Your task to perform on an android device: check the backup settings in the google photos Image 0: 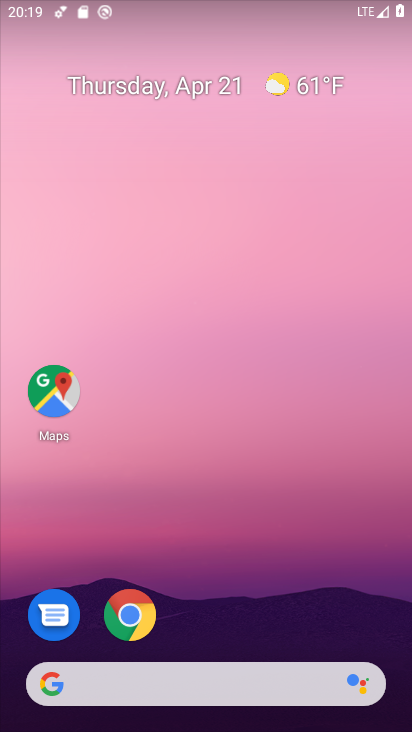
Step 0: drag from (193, 640) to (219, 300)
Your task to perform on an android device: check the backup settings in the google photos Image 1: 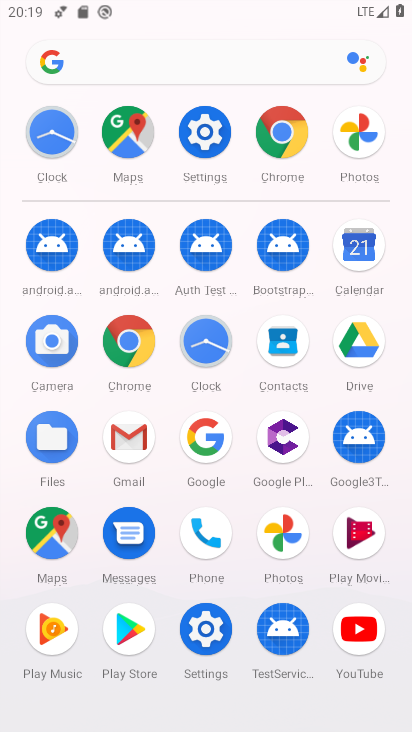
Step 1: click (271, 521)
Your task to perform on an android device: check the backup settings in the google photos Image 2: 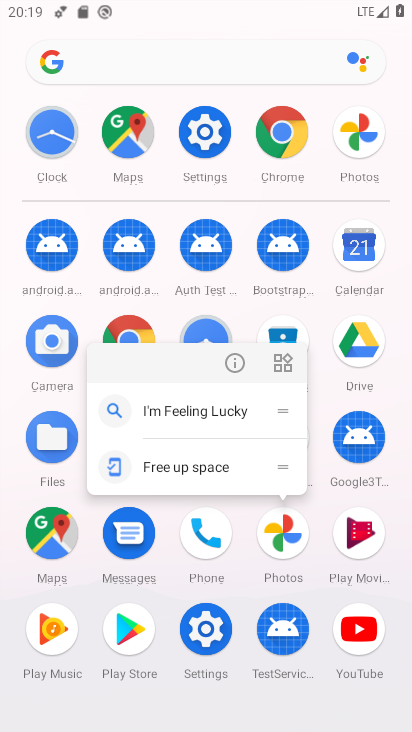
Step 2: click (236, 358)
Your task to perform on an android device: check the backup settings in the google photos Image 3: 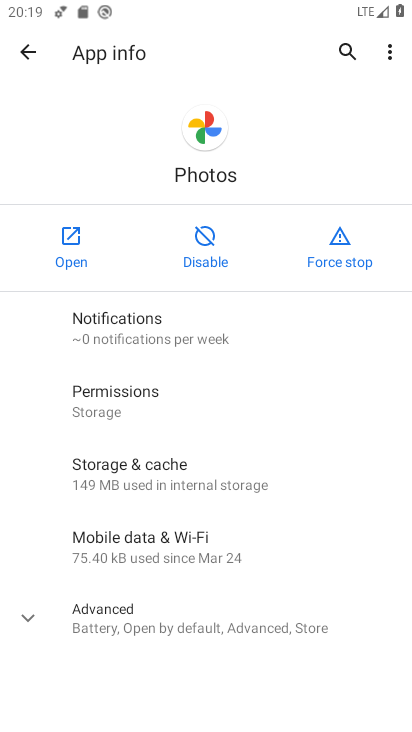
Step 3: click (75, 247)
Your task to perform on an android device: check the backup settings in the google photos Image 4: 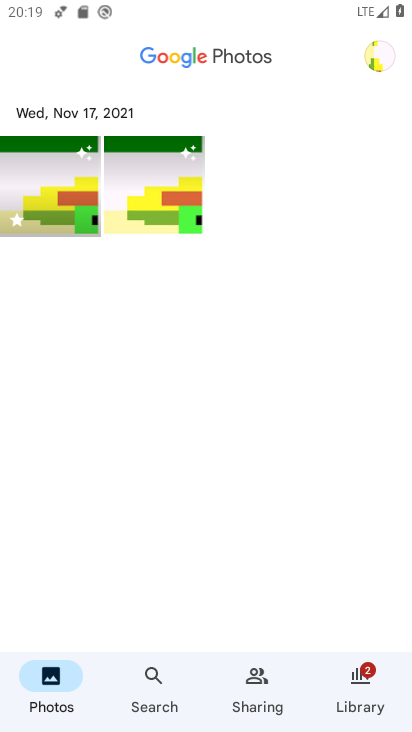
Step 4: drag from (266, 517) to (280, 323)
Your task to perform on an android device: check the backup settings in the google photos Image 5: 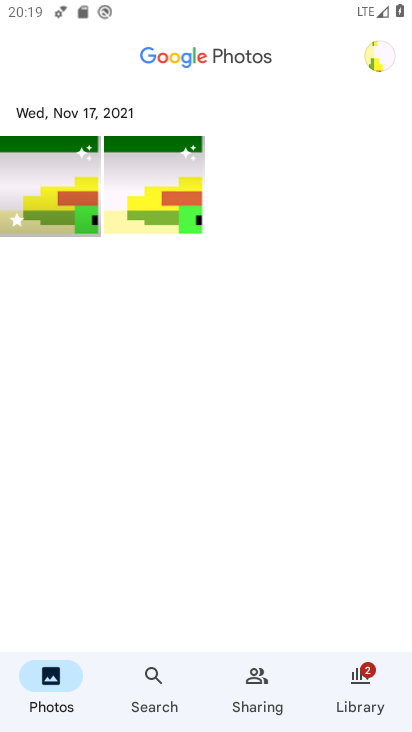
Step 5: drag from (236, 540) to (292, 128)
Your task to perform on an android device: check the backup settings in the google photos Image 6: 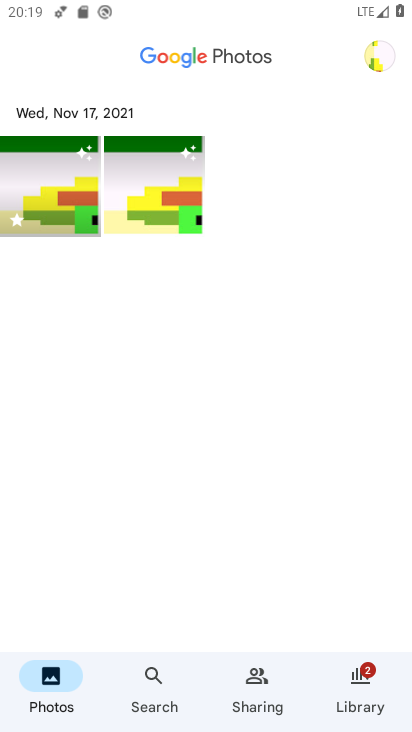
Step 6: drag from (193, 579) to (223, 231)
Your task to perform on an android device: check the backup settings in the google photos Image 7: 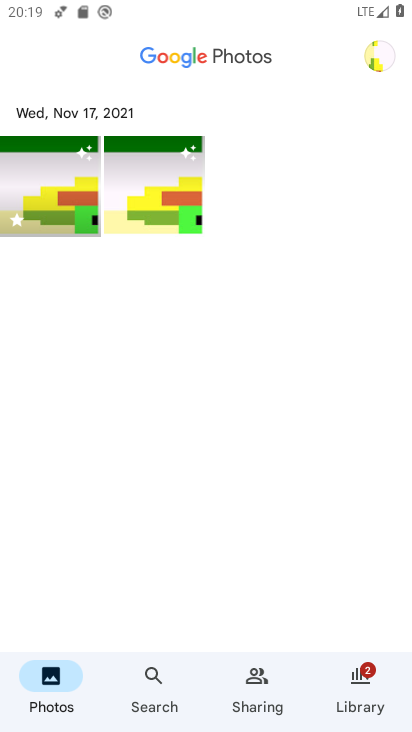
Step 7: click (123, 193)
Your task to perform on an android device: check the backup settings in the google photos Image 8: 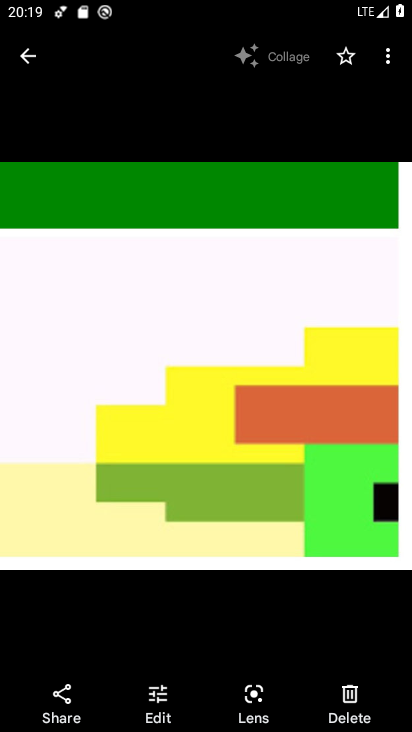
Step 8: drag from (365, 466) to (2, 385)
Your task to perform on an android device: check the backup settings in the google photos Image 9: 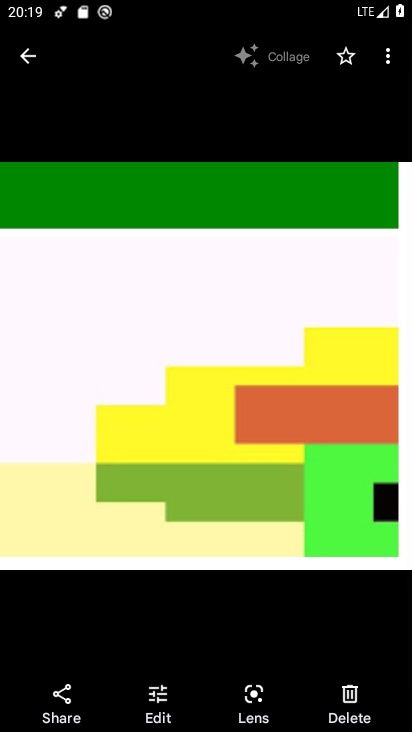
Step 9: click (29, 57)
Your task to perform on an android device: check the backup settings in the google photos Image 10: 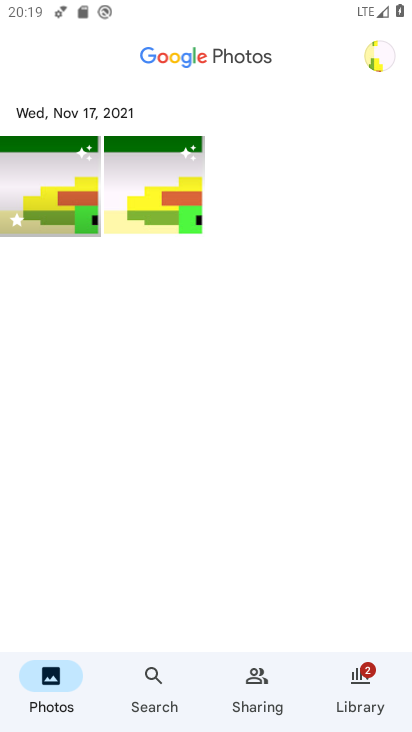
Step 10: drag from (167, 540) to (155, 288)
Your task to perform on an android device: check the backup settings in the google photos Image 11: 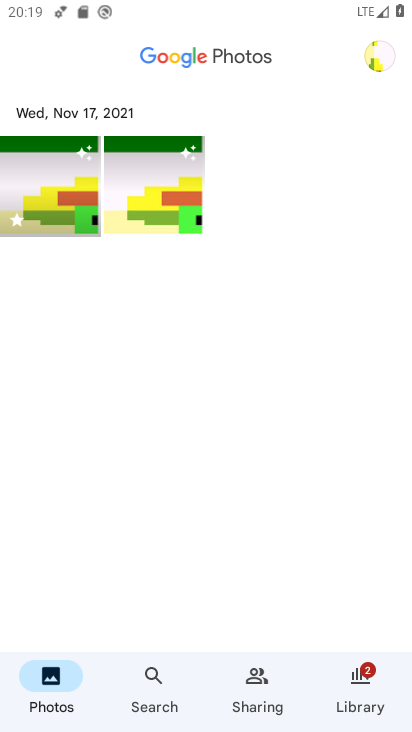
Step 11: drag from (236, 436) to (261, 262)
Your task to perform on an android device: check the backup settings in the google photos Image 12: 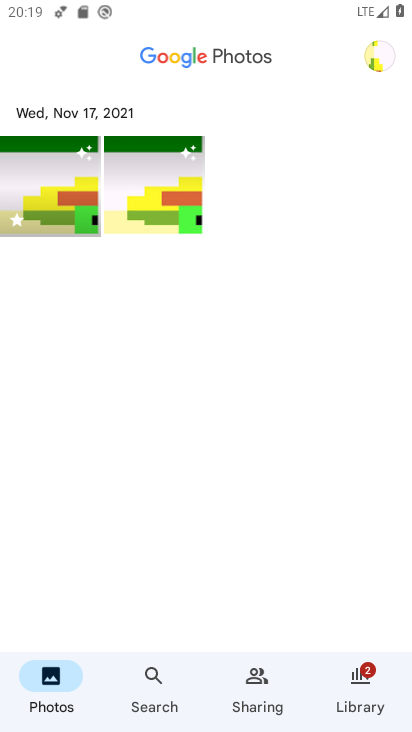
Step 12: click (374, 58)
Your task to perform on an android device: check the backup settings in the google photos Image 13: 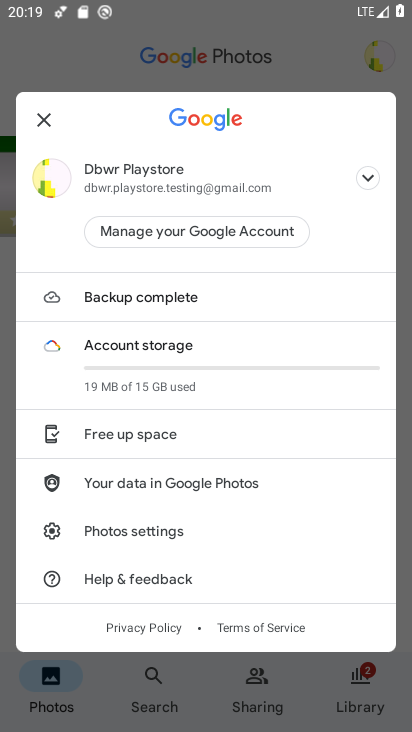
Step 13: click (143, 522)
Your task to perform on an android device: check the backup settings in the google photos Image 14: 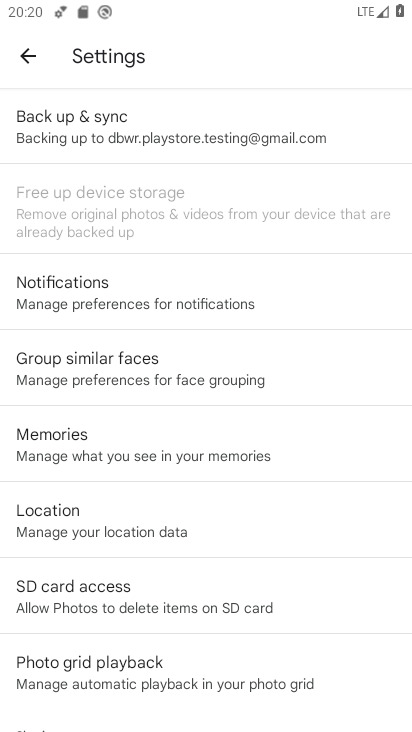
Step 14: drag from (189, 579) to (311, 36)
Your task to perform on an android device: check the backup settings in the google photos Image 15: 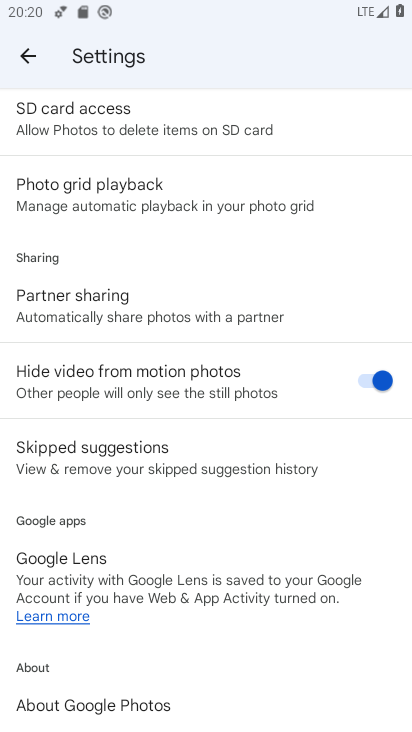
Step 15: drag from (201, 628) to (268, 206)
Your task to perform on an android device: check the backup settings in the google photos Image 16: 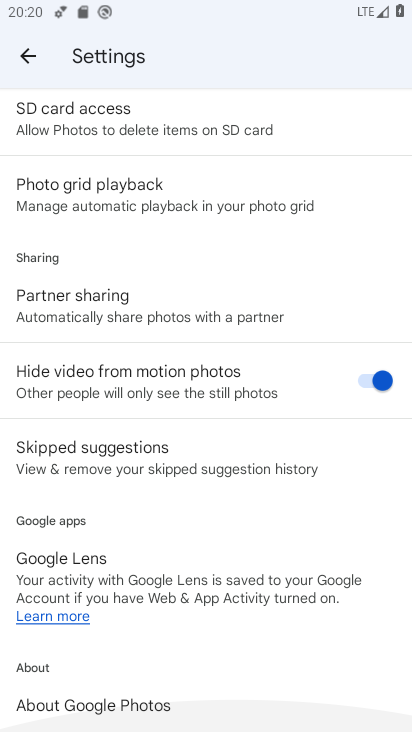
Step 16: drag from (224, 184) to (263, 717)
Your task to perform on an android device: check the backup settings in the google photos Image 17: 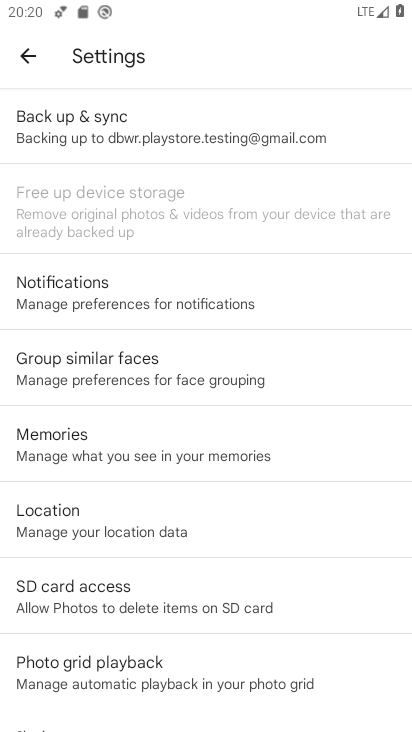
Step 17: click (154, 143)
Your task to perform on an android device: check the backup settings in the google photos Image 18: 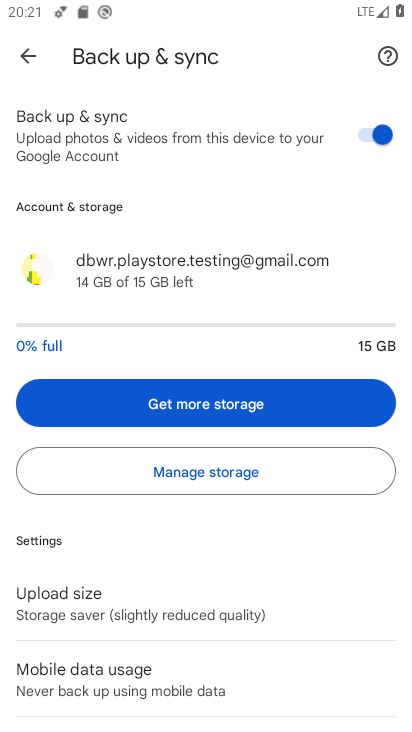
Step 18: task complete